Your task to perform on an android device: turn on the 24-hour format for clock Image 0: 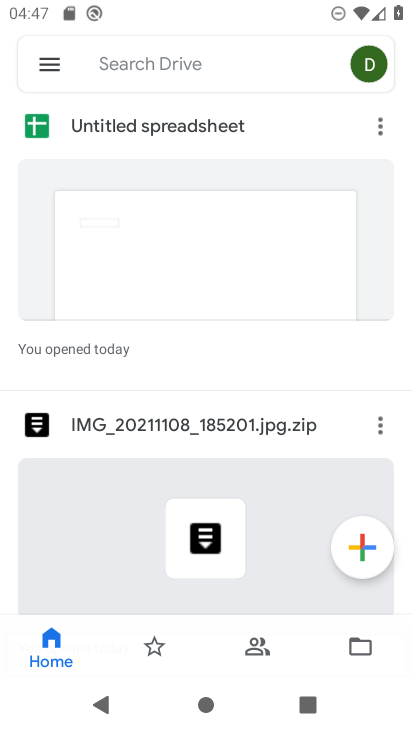
Step 0: press home button
Your task to perform on an android device: turn on the 24-hour format for clock Image 1: 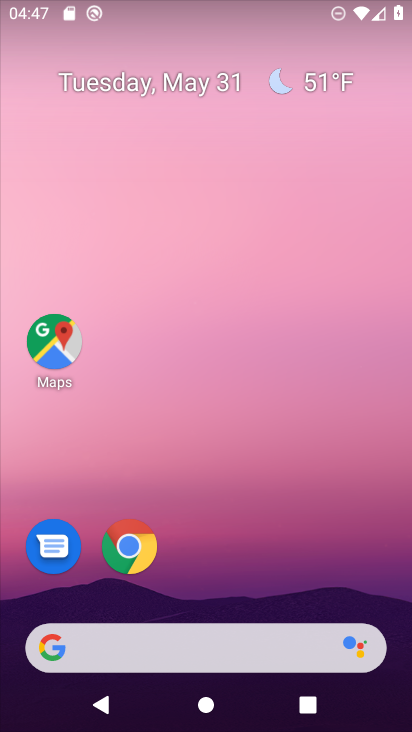
Step 1: drag from (211, 573) to (223, 34)
Your task to perform on an android device: turn on the 24-hour format for clock Image 2: 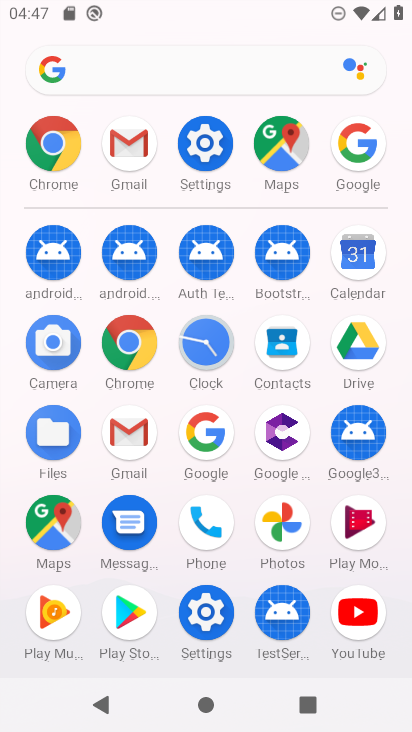
Step 2: click (197, 350)
Your task to perform on an android device: turn on the 24-hour format for clock Image 3: 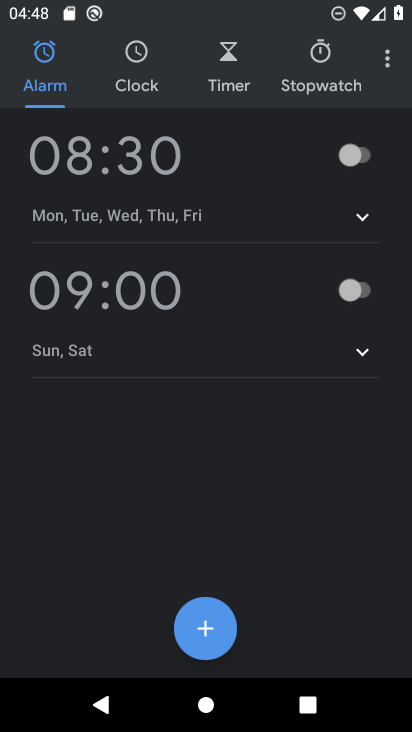
Step 3: click (386, 68)
Your task to perform on an android device: turn on the 24-hour format for clock Image 4: 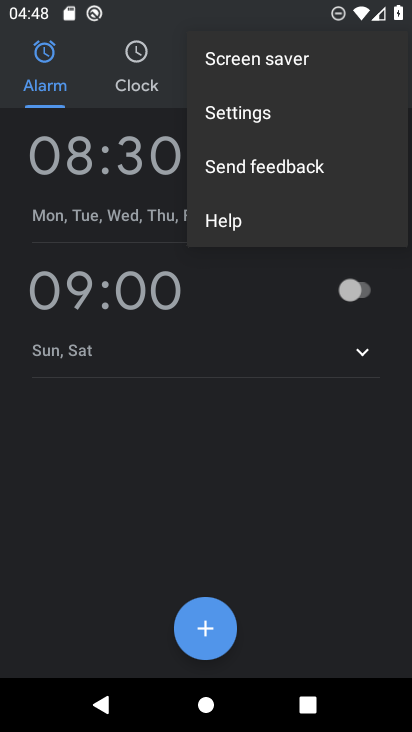
Step 4: click (272, 114)
Your task to perform on an android device: turn on the 24-hour format for clock Image 5: 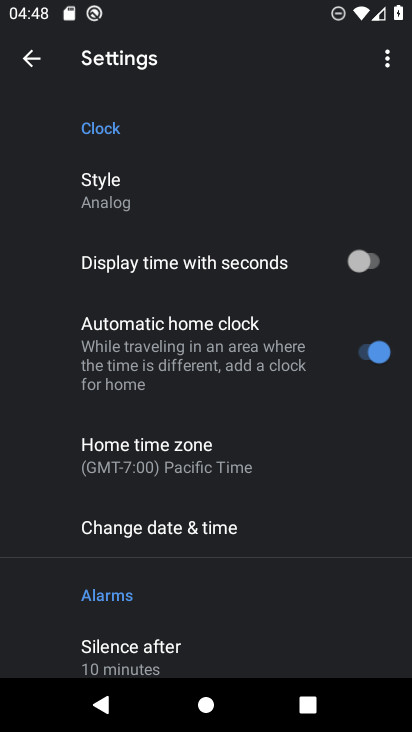
Step 5: click (143, 537)
Your task to perform on an android device: turn on the 24-hour format for clock Image 6: 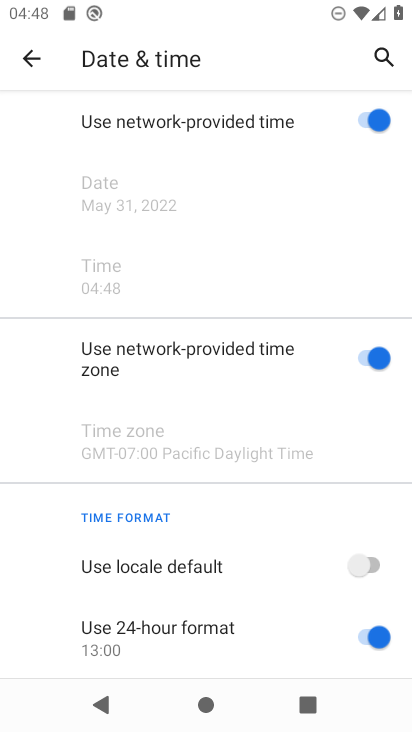
Step 6: drag from (209, 602) to (255, 328)
Your task to perform on an android device: turn on the 24-hour format for clock Image 7: 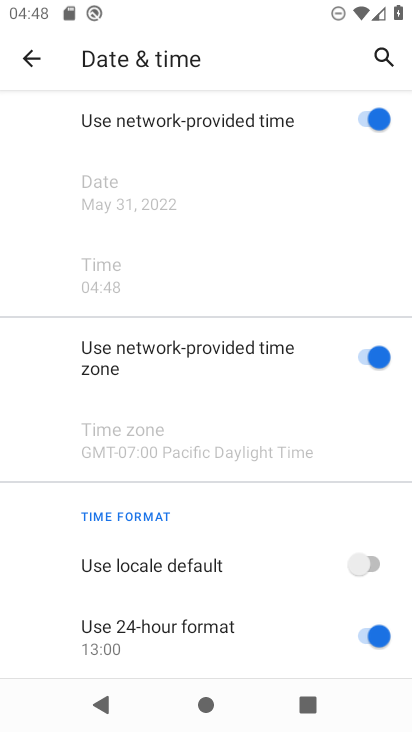
Step 7: click (363, 645)
Your task to perform on an android device: turn on the 24-hour format for clock Image 8: 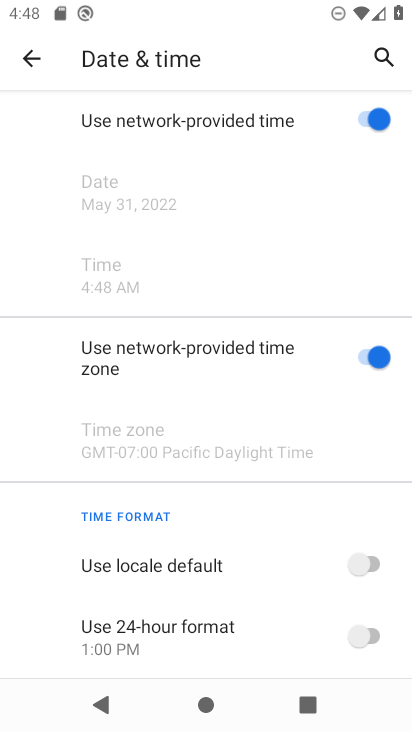
Step 8: click (380, 644)
Your task to perform on an android device: turn on the 24-hour format for clock Image 9: 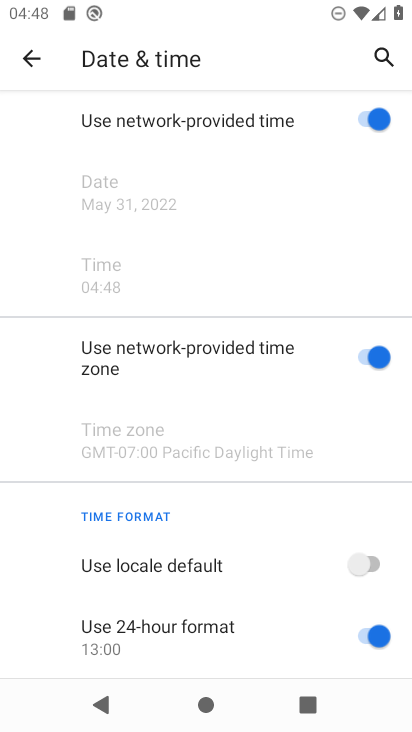
Step 9: task complete